Your task to perform on an android device: set the stopwatch Image 0: 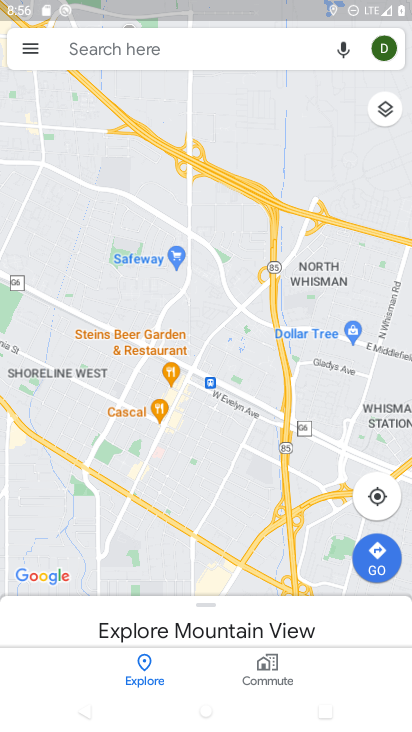
Step 0: press home button
Your task to perform on an android device: set the stopwatch Image 1: 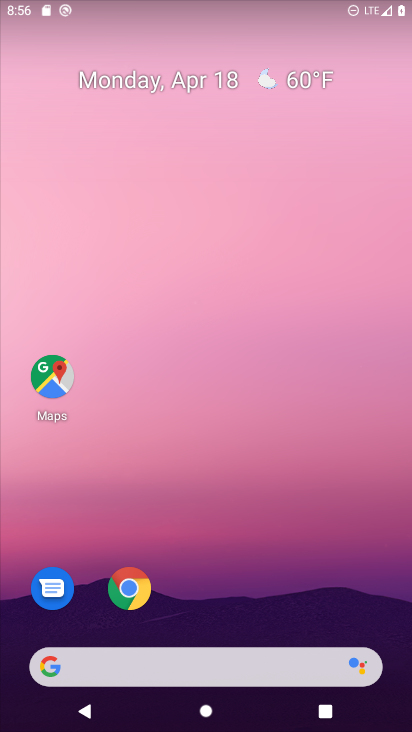
Step 1: drag from (384, 622) to (318, 131)
Your task to perform on an android device: set the stopwatch Image 2: 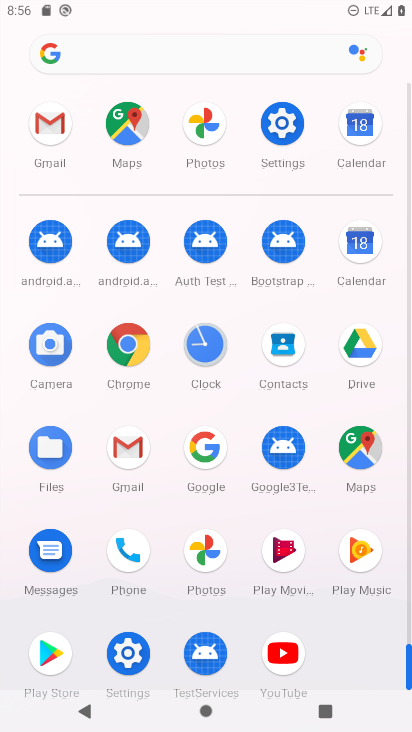
Step 2: click (202, 345)
Your task to perform on an android device: set the stopwatch Image 3: 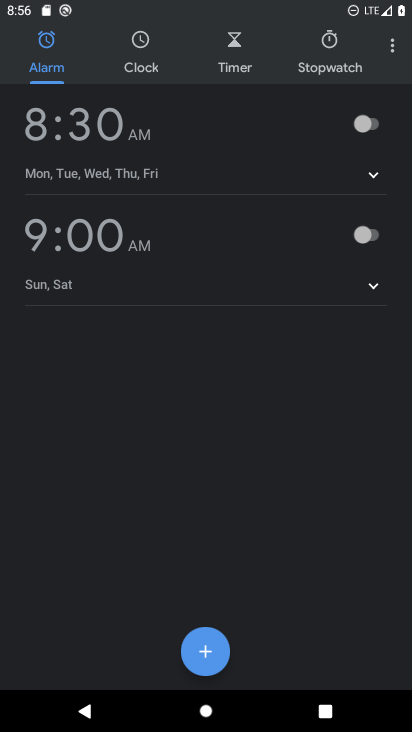
Step 3: click (329, 43)
Your task to perform on an android device: set the stopwatch Image 4: 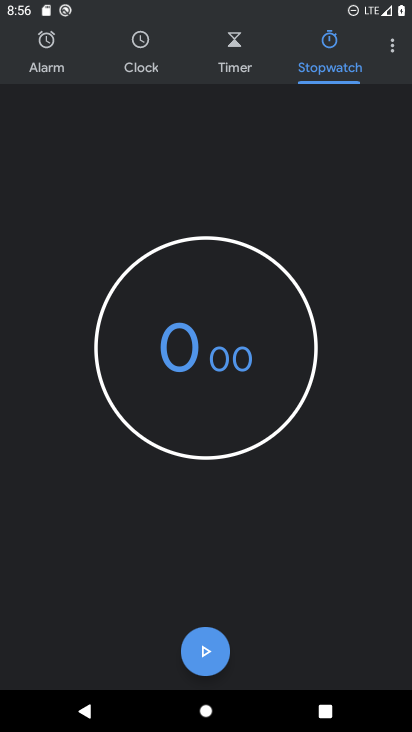
Step 4: task complete